Your task to perform on an android device: star an email in the gmail app Image 0: 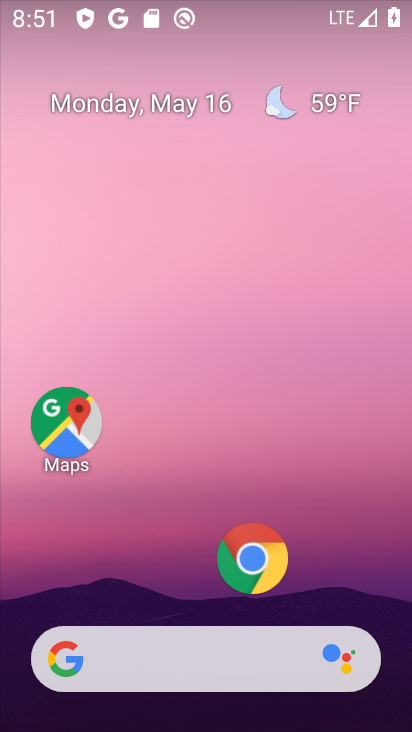
Step 0: drag from (141, 554) to (278, 83)
Your task to perform on an android device: star an email in the gmail app Image 1: 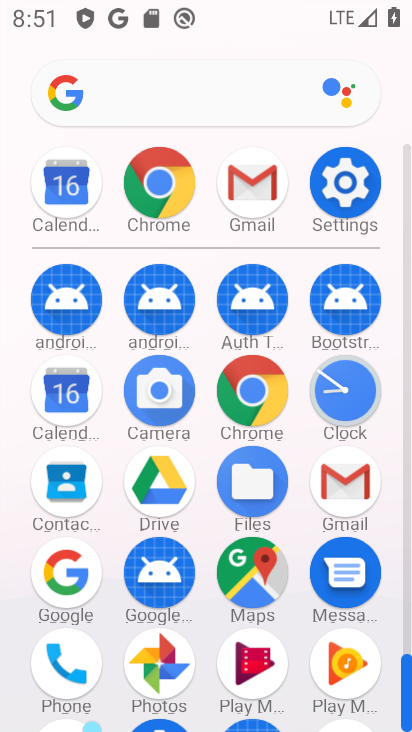
Step 1: click (253, 187)
Your task to perform on an android device: star an email in the gmail app Image 2: 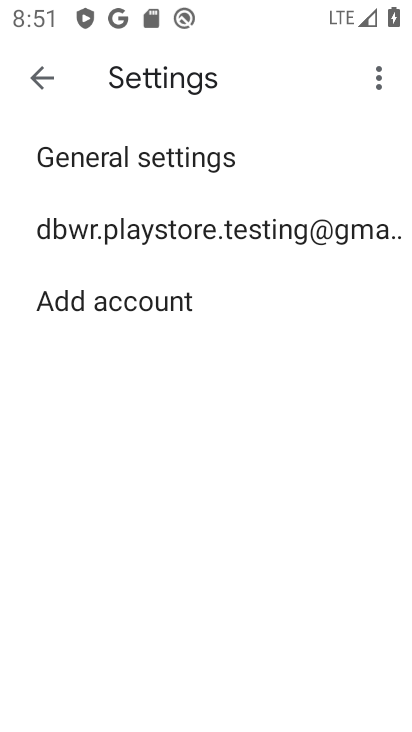
Step 2: press back button
Your task to perform on an android device: star an email in the gmail app Image 3: 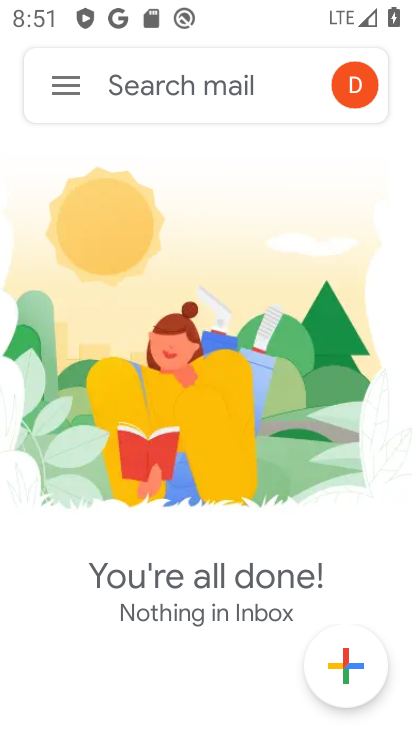
Step 3: press back button
Your task to perform on an android device: star an email in the gmail app Image 4: 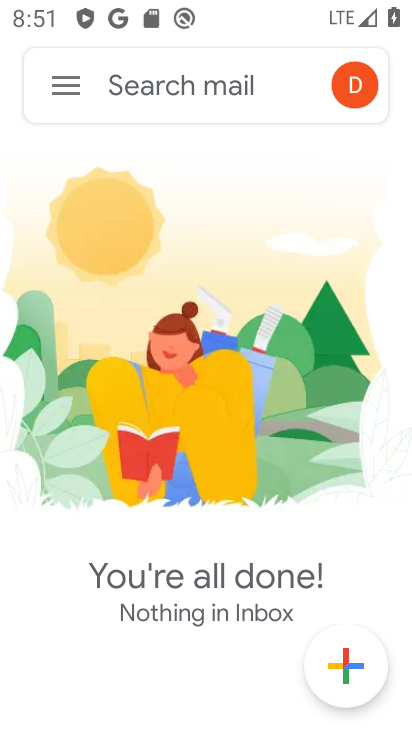
Step 4: press back button
Your task to perform on an android device: star an email in the gmail app Image 5: 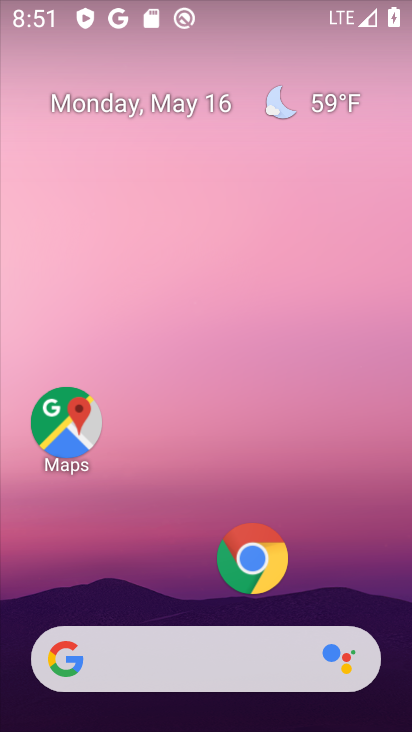
Step 5: drag from (183, 532) to (241, 58)
Your task to perform on an android device: star an email in the gmail app Image 6: 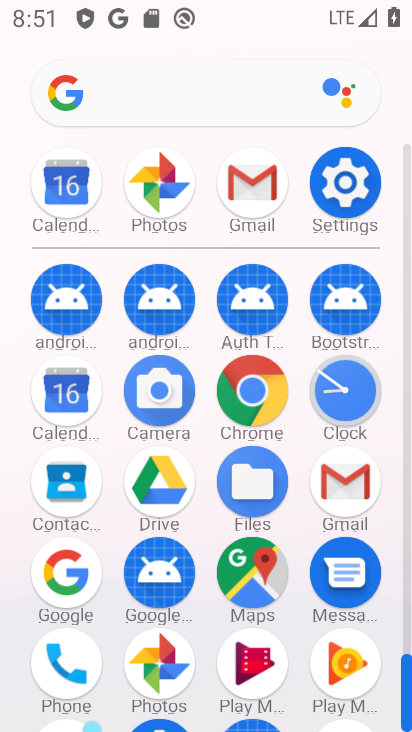
Step 6: click (249, 190)
Your task to perform on an android device: star an email in the gmail app Image 7: 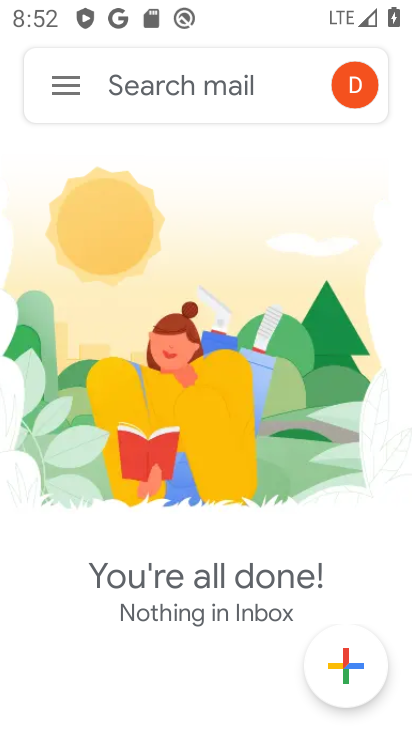
Step 7: click (52, 84)
Your task to perform on an android device: star an email in the gmail app Image 8: 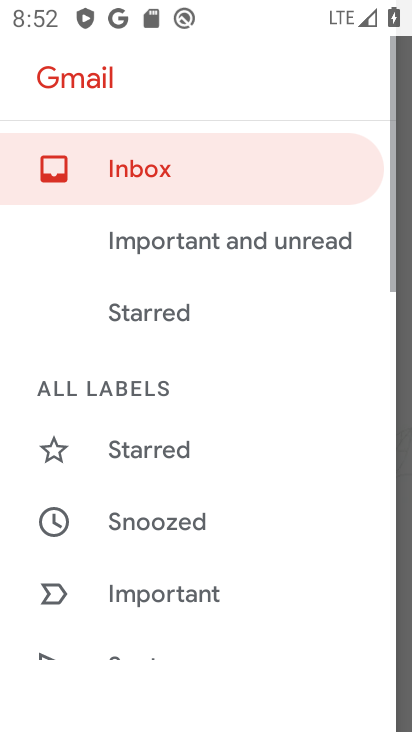
Step 8: drag from (157, 616) to (287, 54)
Your task to perform on an android device: star an email in the gmail app Image 9: 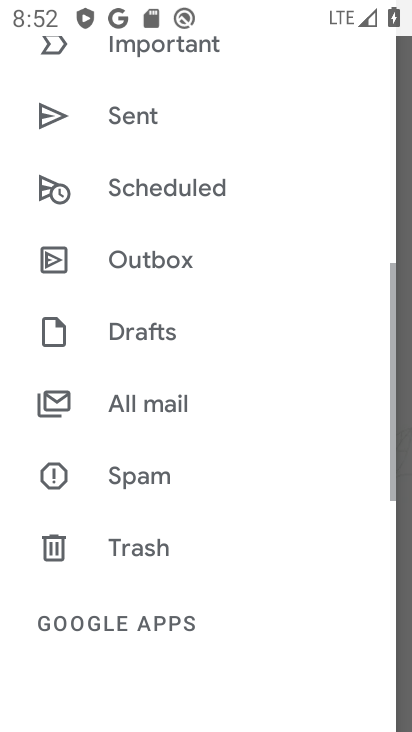
Step 9: click (303, 8)
Your task to perform on an android device: star an email in the gmail app Image 10: 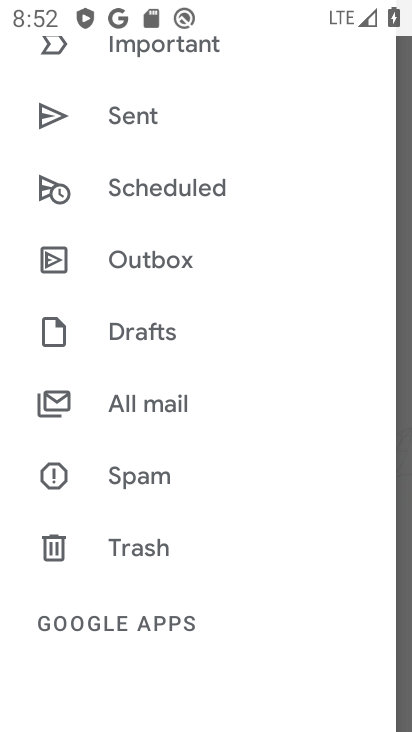
Step 10: drag from (218, 195) to (216, 380)
Your task to perform on an android device: star an email in the gmail app Image 11: 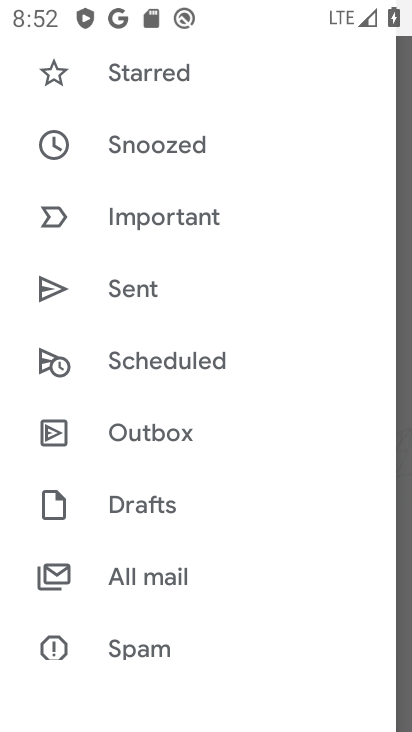
Step 11: click (138, 579)
Your task to perform on an android device: star an email in the gmail app Image 12: 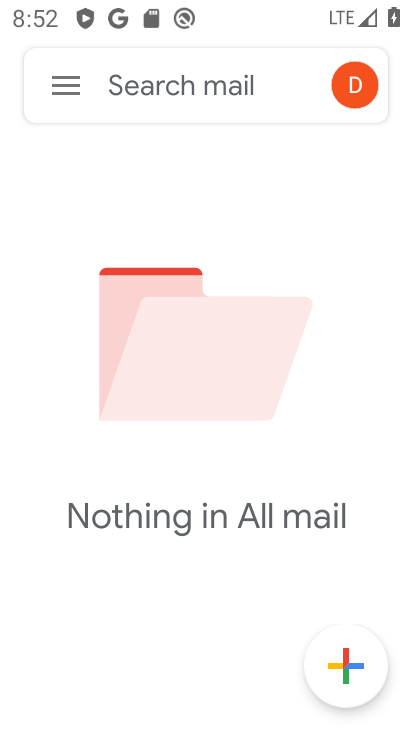
Step 12: task complete